Your task to perform on an android device: Go to battery settings Image 0: 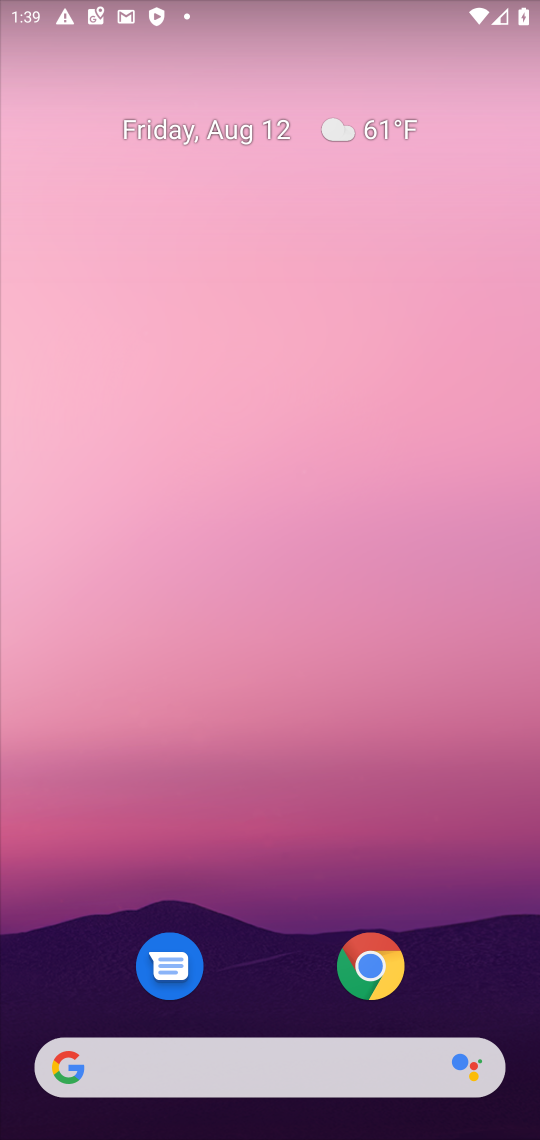
Step 0: drag from (290, 681) to (191, 2)
Your task to perform on an android device: Go to battery settings Image 1: 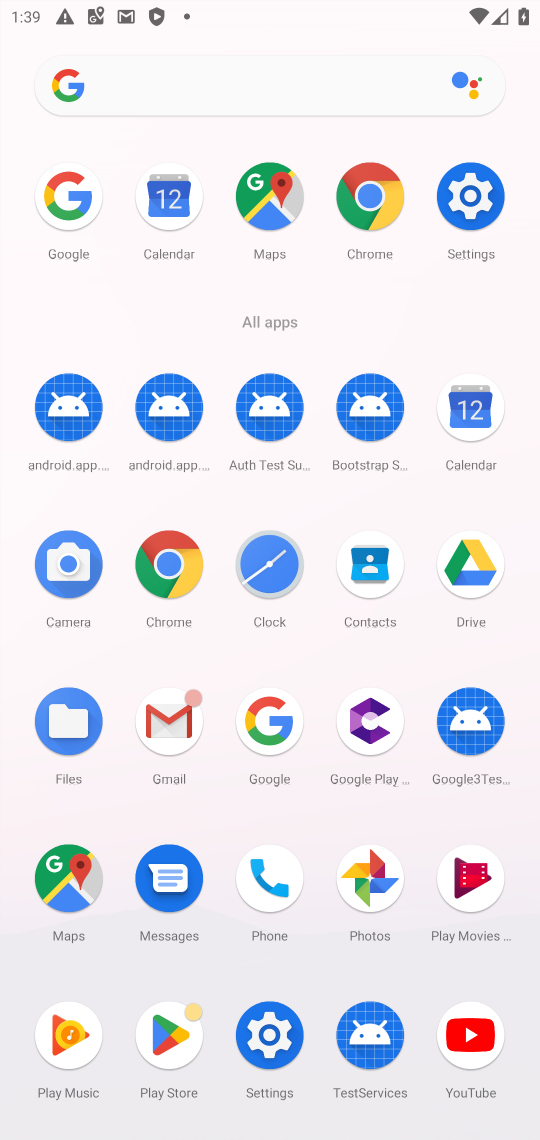
Step 1: click (262, 1028)
Your task to perform on an android device: Go to battery settings Image 2: 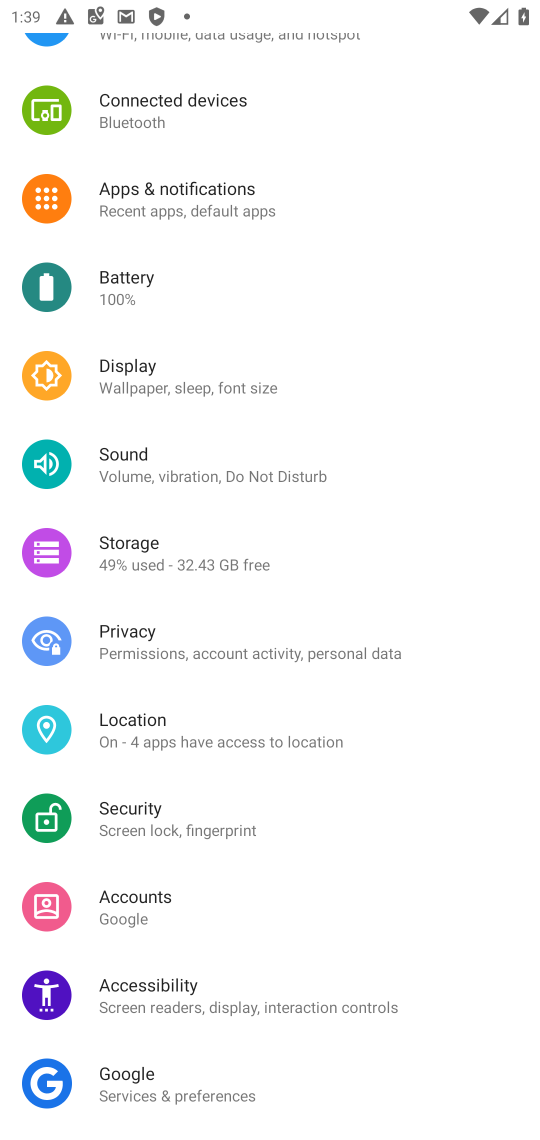
Step 2: click (136, 280)
Your task to perform on an android device: Go to battery settings Image 3: 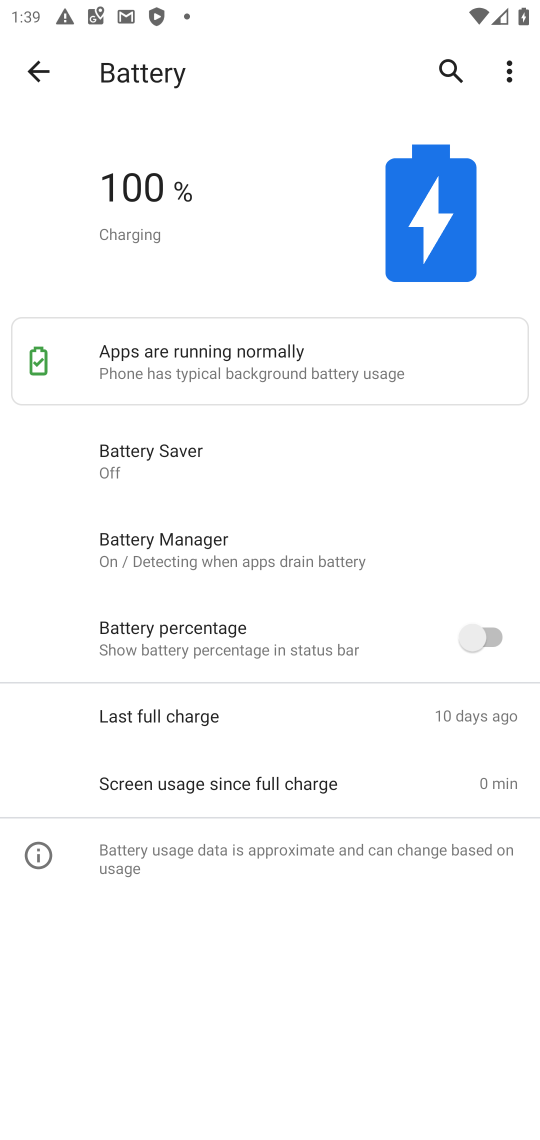
Step 3: task complete